Your task to perform on an android device: Set the phone to "Do not disturb". Image 0: 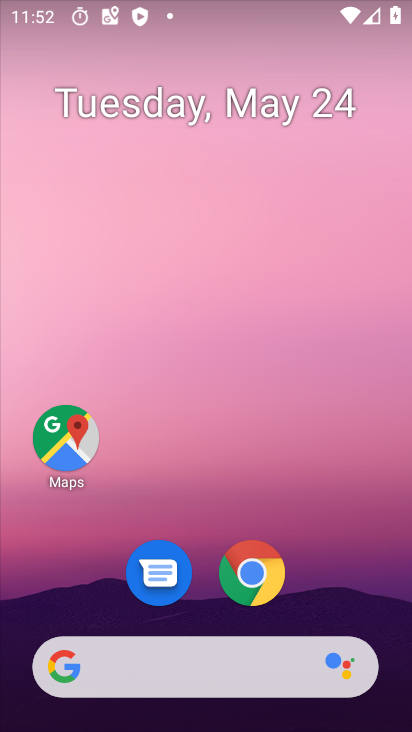
Step 0: drag from (351, 553) to (259, 52)
Your task to perform on an android device: Set the phone to "Do not disturb". Image 1: 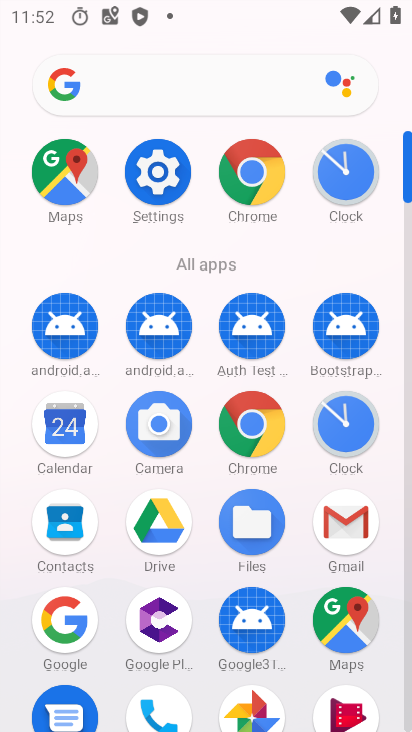
Step 1: click (155, 171)
Your task to perform on an android device: Set the phone to "Do not disturb". Image 2: 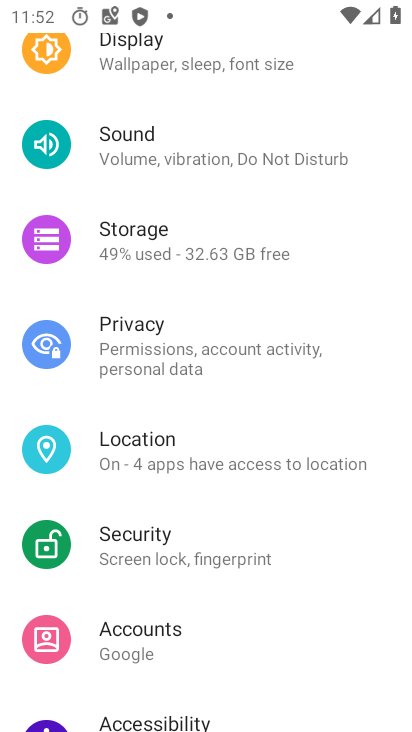
Step 2: click (219, 150)
Your task to perform on an android device: Set the phone to "Do not disturb". Image 3: 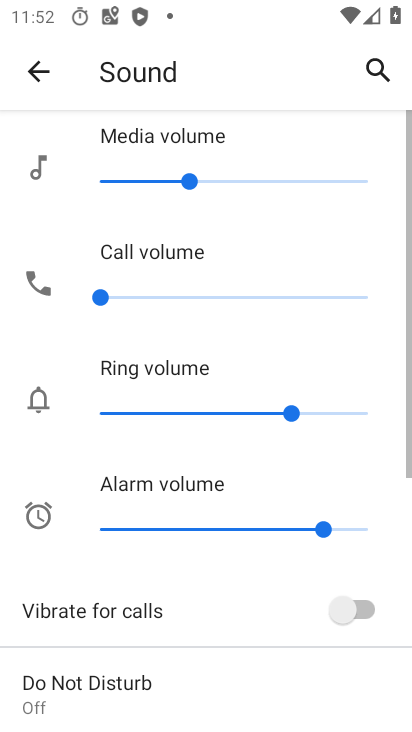
Step 3: drag from (219, 562) to (210, 125)
Your task to perform on an android device: Set the phone to "Do not disturb". Image 4: 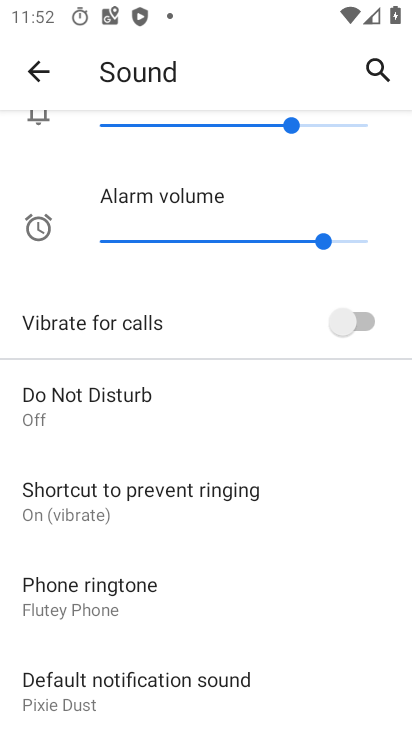
Step 4: click (168, 390)
Your task to perform on an android device: Set the phone to "Do not disturb". Image 5: 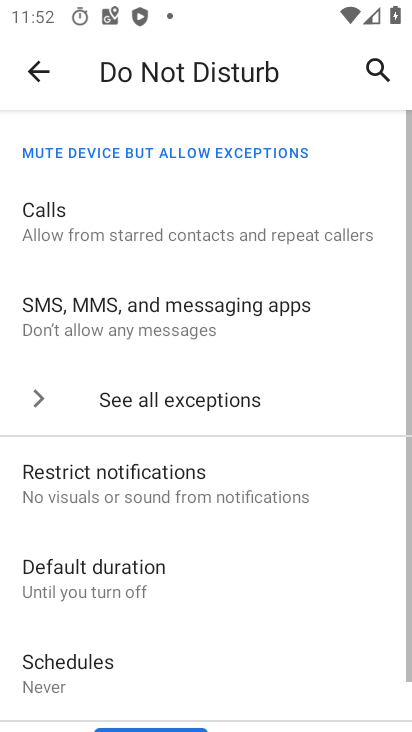
Step 5: drag from (291, 620) to (316, 98)
Your task to perform on an android device: Set the phone to "Do not disturb". Image 6: 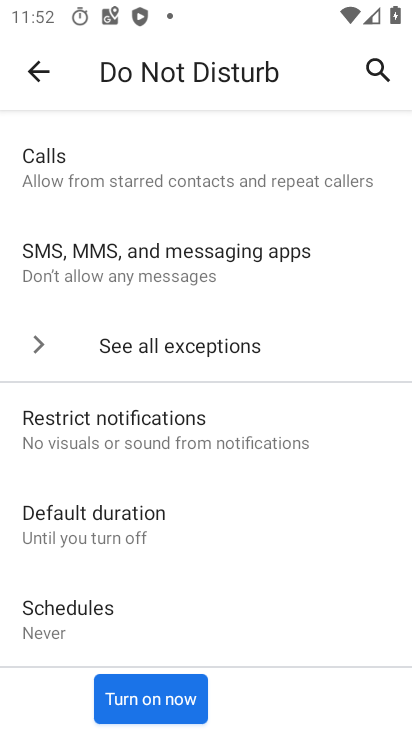
Step 6: click (173, 689)
Your task to perform on an android device: Set the phone to "Do not disturb". Image 7: 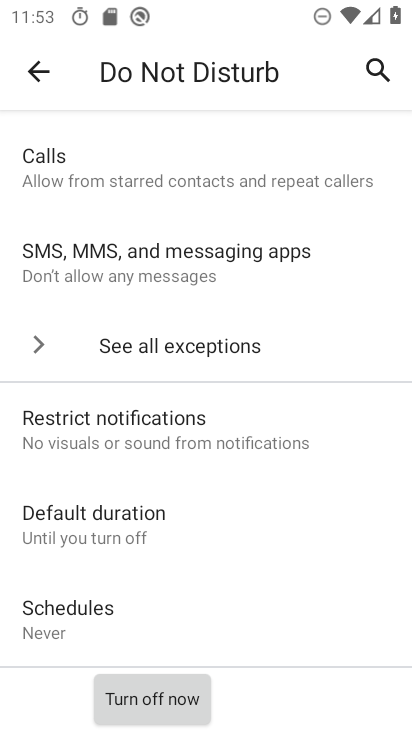
Step 7: task complete